Your task to perform on an android device: open the mobile data screen to see how much data has been used Image 0: 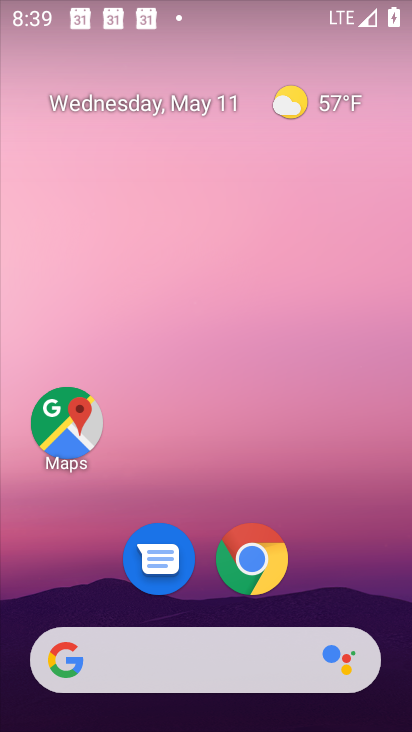
Step 0: drag from (173, 1) to (199, 730)
Your task to perform on an android device: open the mobile data screen to see how much data has been used Image 1: 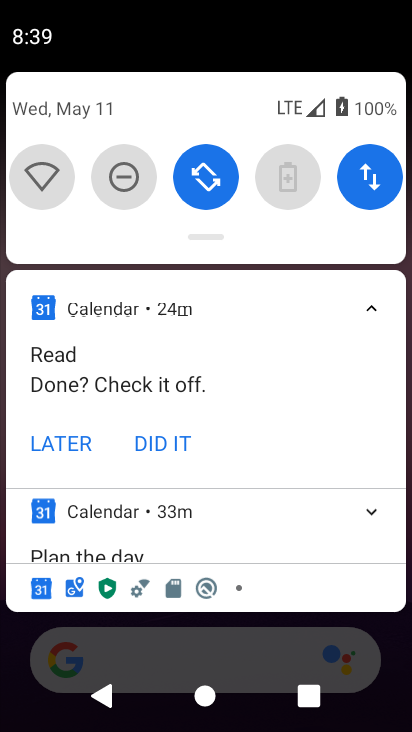
Step 1: click (364, 178)
Your task to perform on an android device: open the mobile data screen to see how much data has been used Image 2: 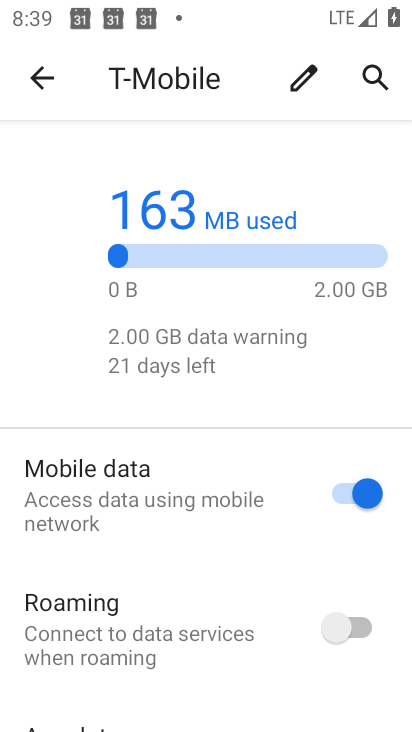
Step 2: task complete